Your task to perform on an android device: Add razer blade to the cart on walmart.com Image 0: 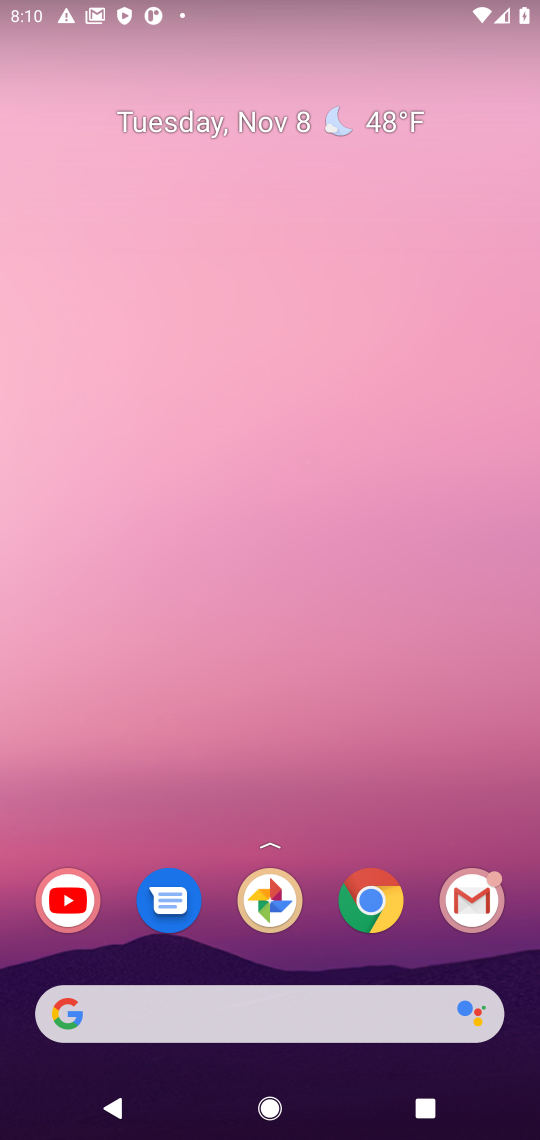
Step 0: click (378, 909)
Your task to perform on an android device: Add razer blade to the cart on walmart.com Image 1: 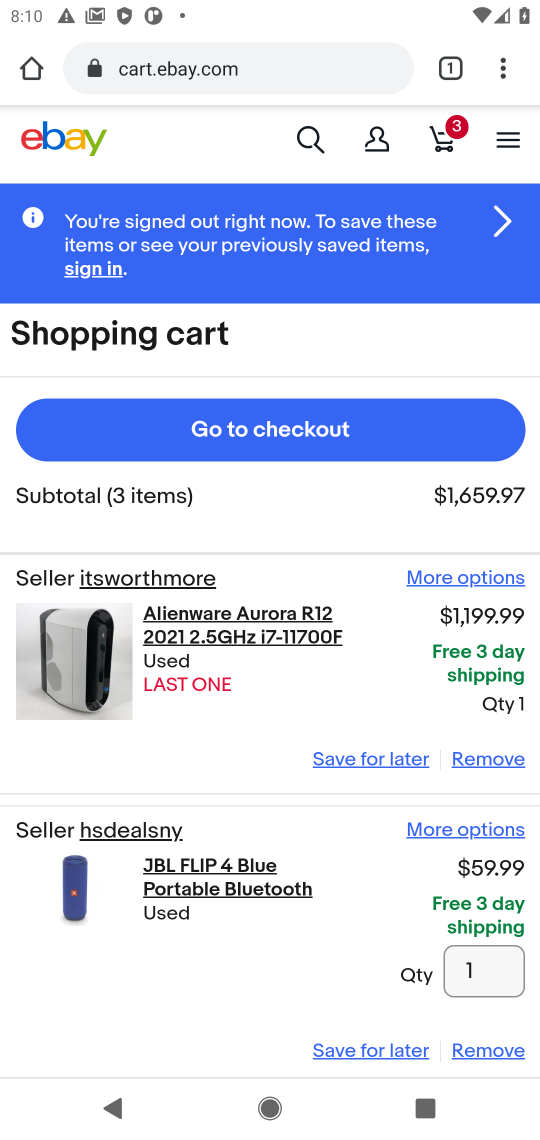
Step 1: click (160, 71)
Your task to perform on an android device: Add razer blade to the cart on walmart.com Image 2: 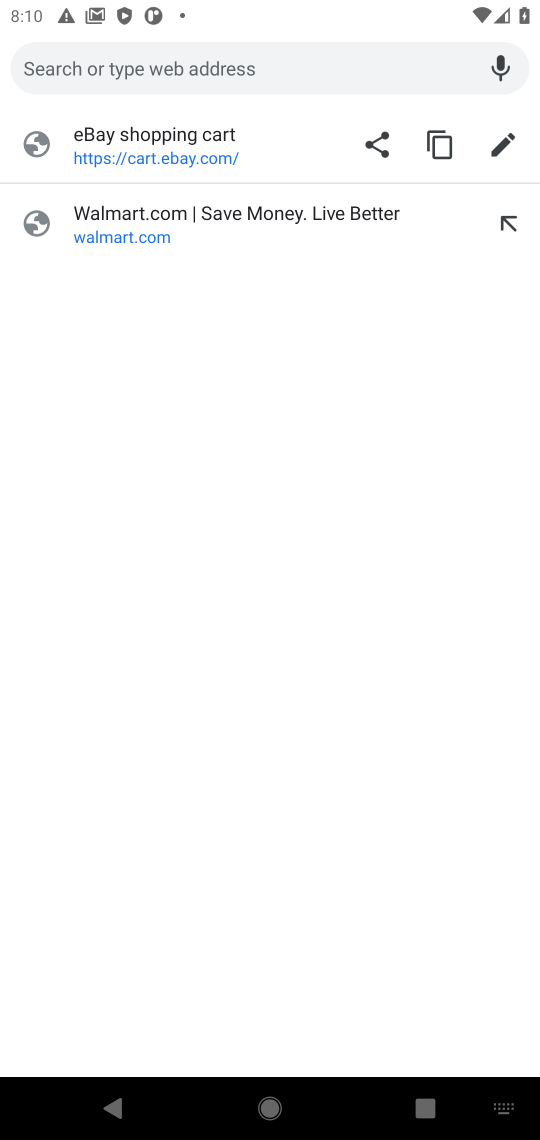
Step 2: type "walmart"
Your task to perform on an android device: Add razer blade to the cart on walmart.com Image 3: 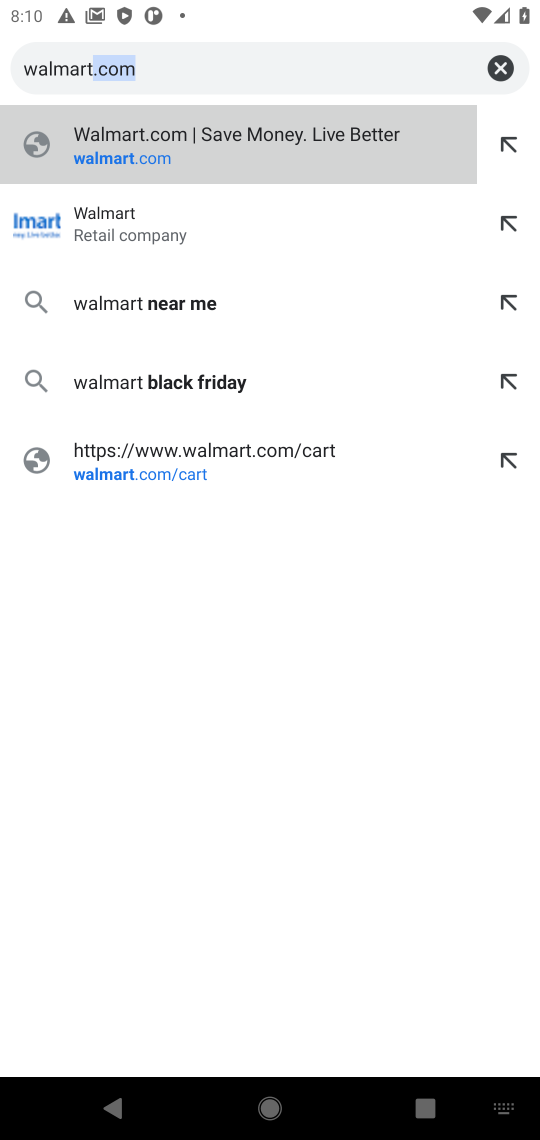
Step 3: type ""
Your task to perform on an android device: Add razer blade to the cart on walmart.com Image 4: 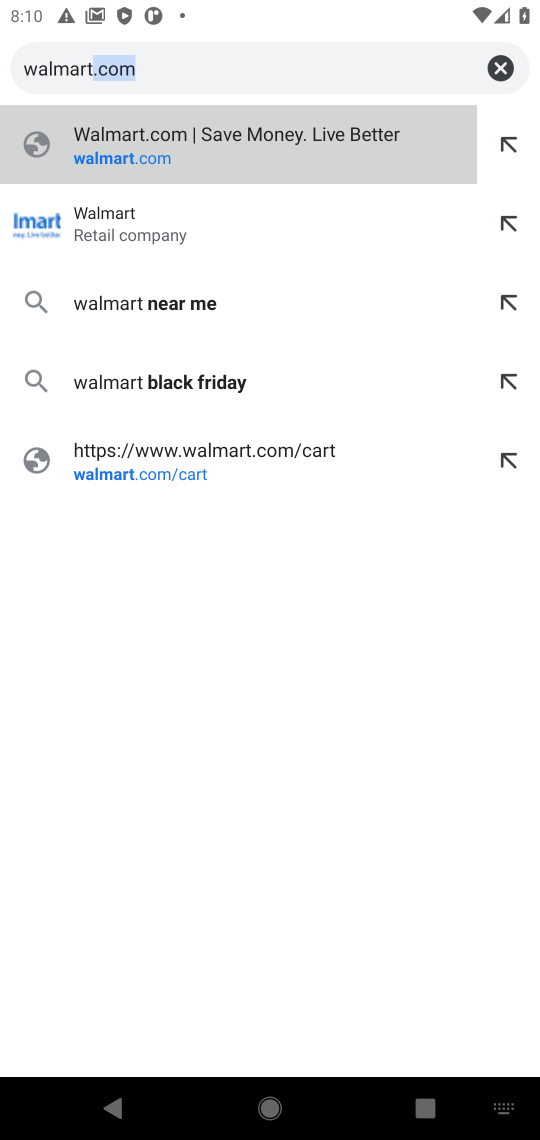
Step 4: click (68, 215)
Your task to perform on an android device: Add razer blade to the cart on walmart.com Image 5: 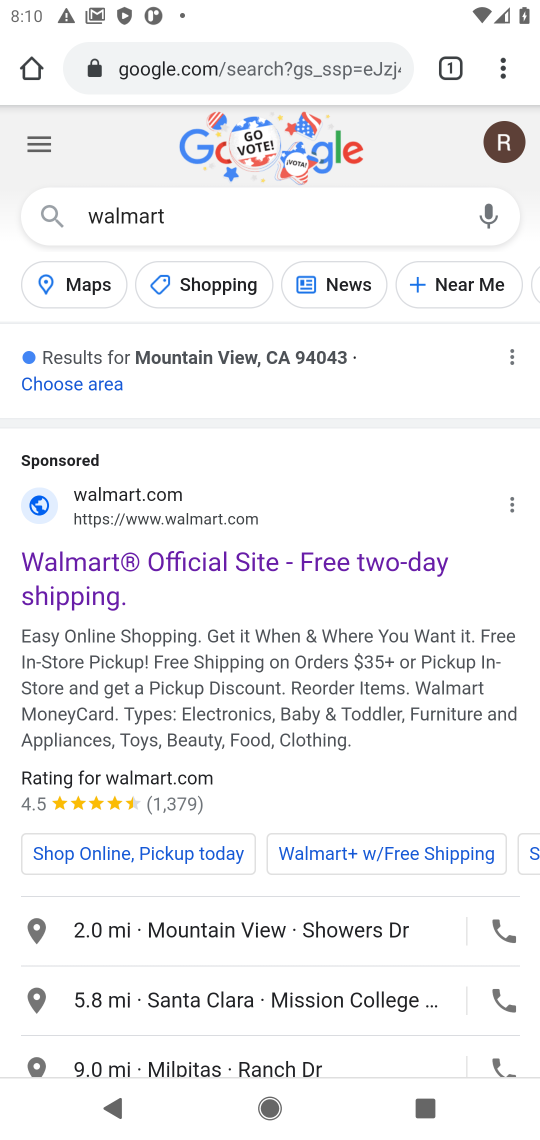
Step 5: drag from (247, 787) to (344, 87)
Your task to perform on an android device: Add razer blade to the cart on walmart.com Image 6: 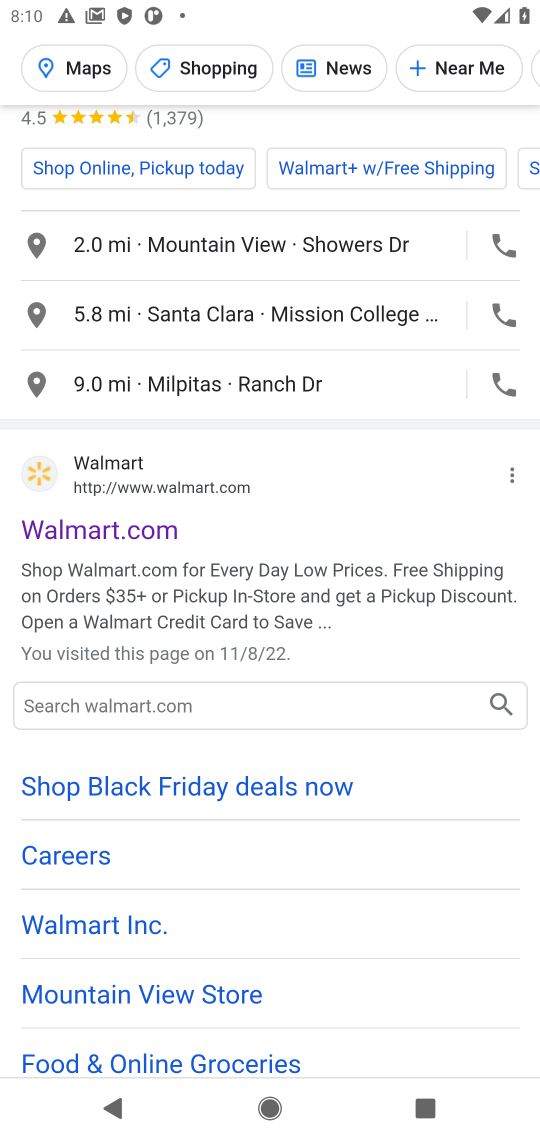
Step 6: click (68, 524)
Your task to perform on an android device: Add razer blade to the cart on walmart.com Image 7: 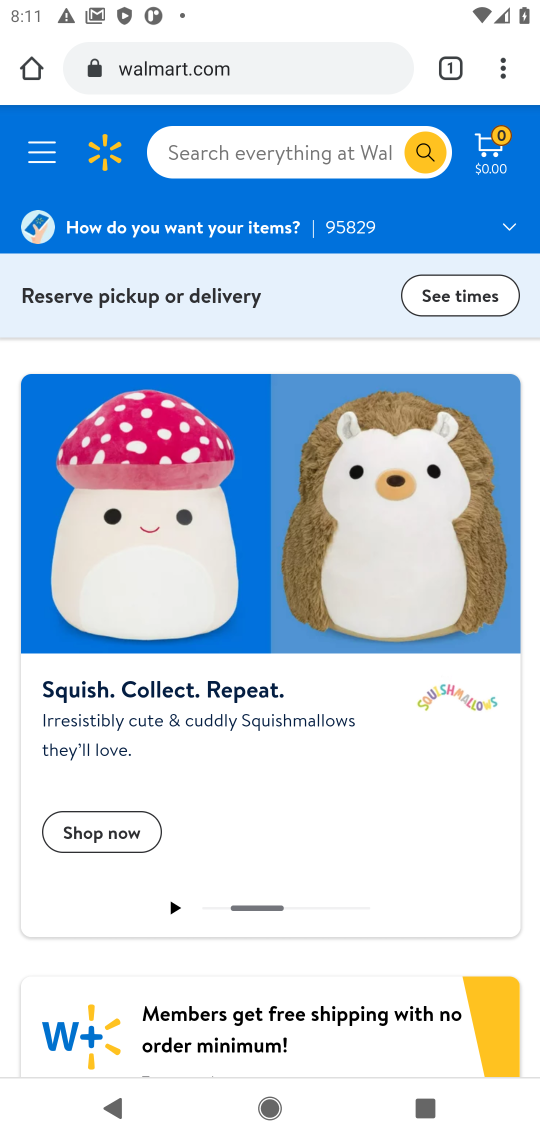
Step 7: click (463, 149)
Your task to perform on an android device: Add razer blade to the cart on walmart.com Image 8: 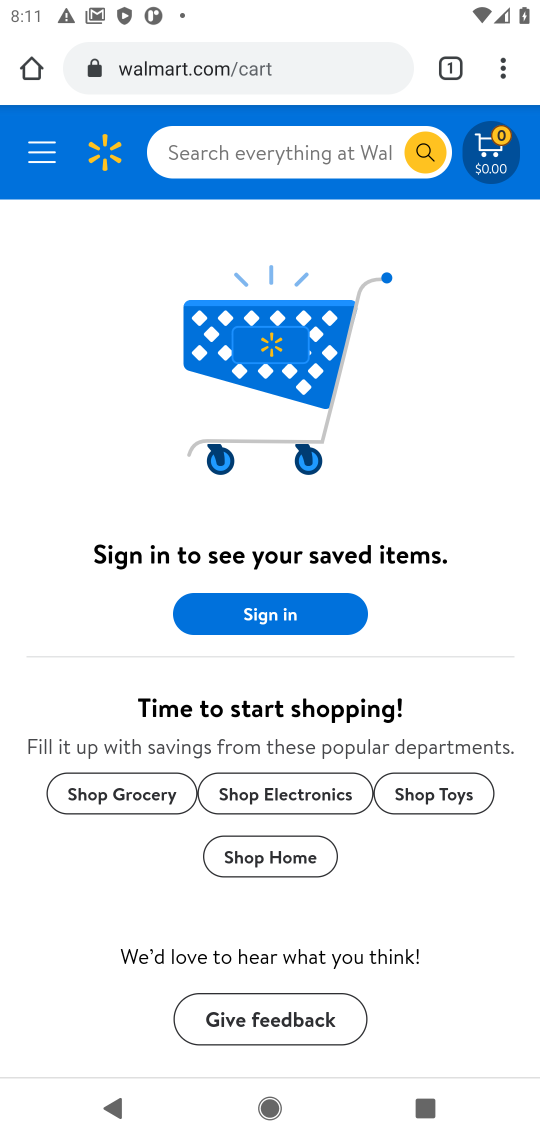
Step 8: click (263, 144)
Your task to perform on an android device: Add razer blade to the cart on walmart.com Image 9: 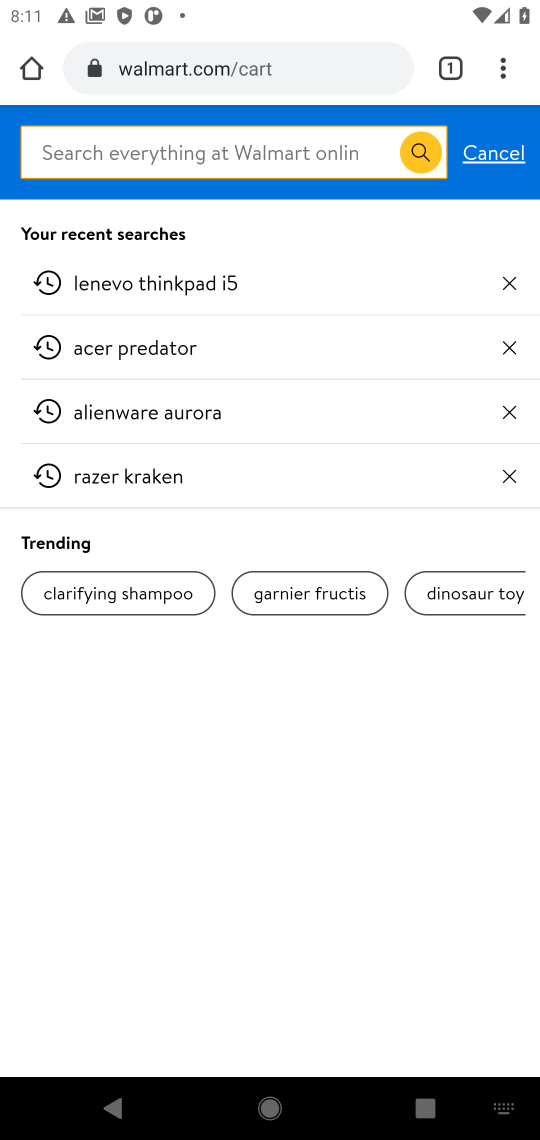
Step 9: type "razer blade"
Your task to perform on an android device: Add razer blade to the cart on walmart.com Image 10: 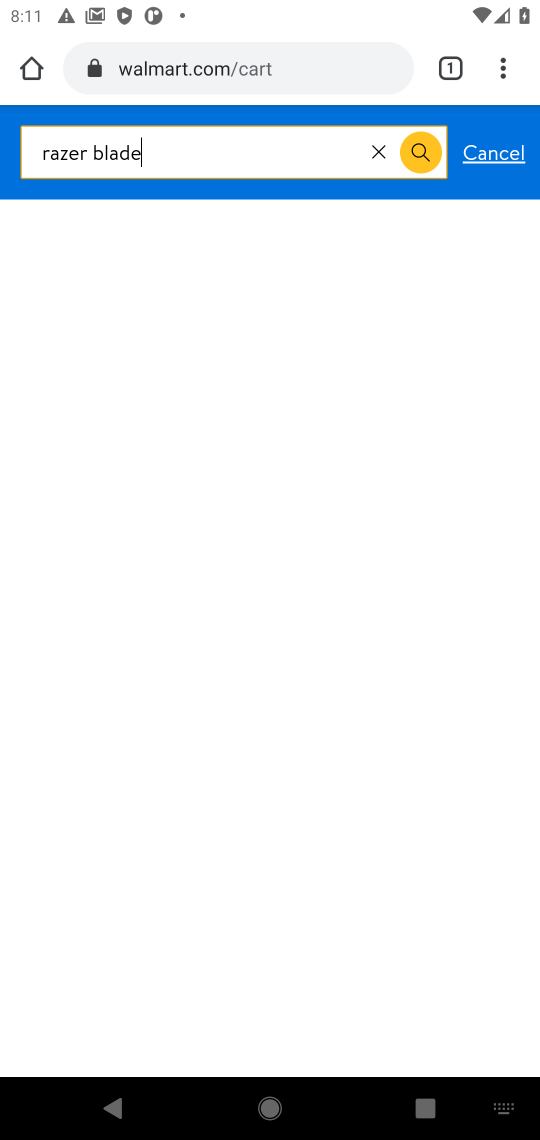
Step 10: type ""
Your task to perform on an android device: Add razer blade to the cart on walmart.com Image 11: 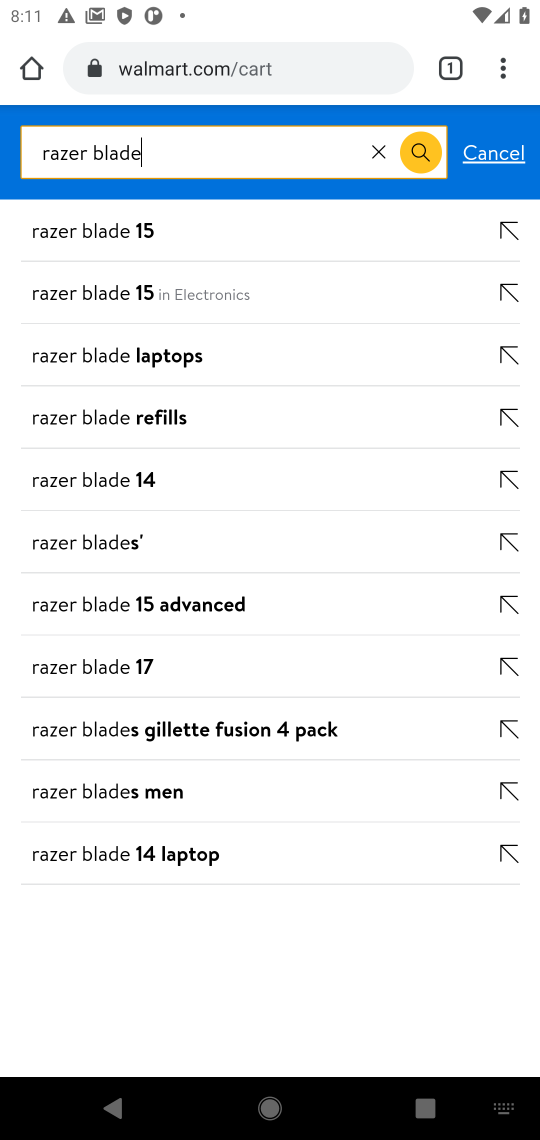
Step 11: click (94, 222)
Your task to perform on an android device: Add razer blade to the cart on walmart.com Image 12: 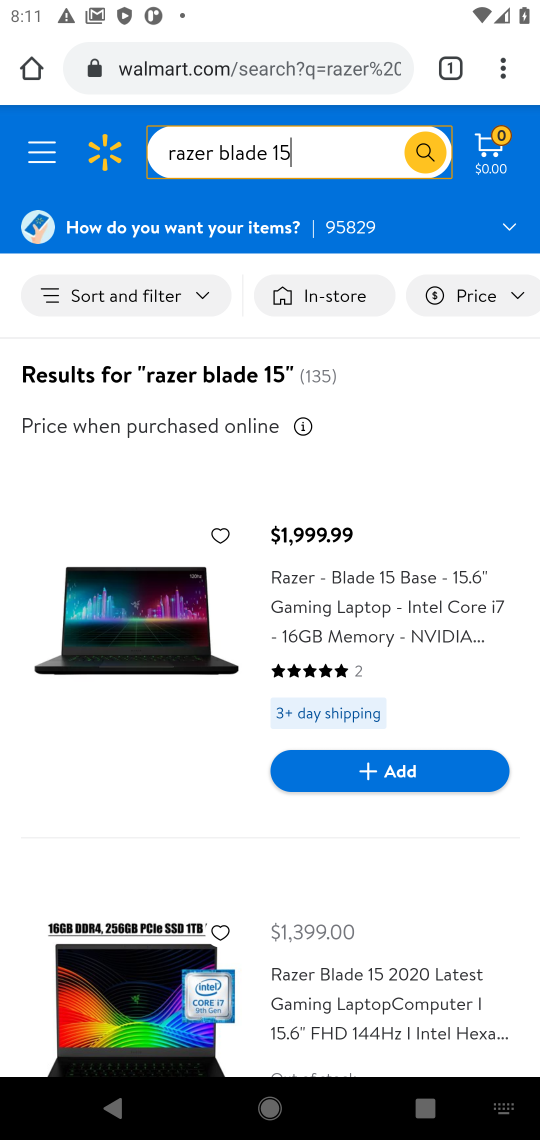
Step 12: click (357, 590)
Your task to perform on an android device: Add razer blade to the cart on walmart.com Image 13: 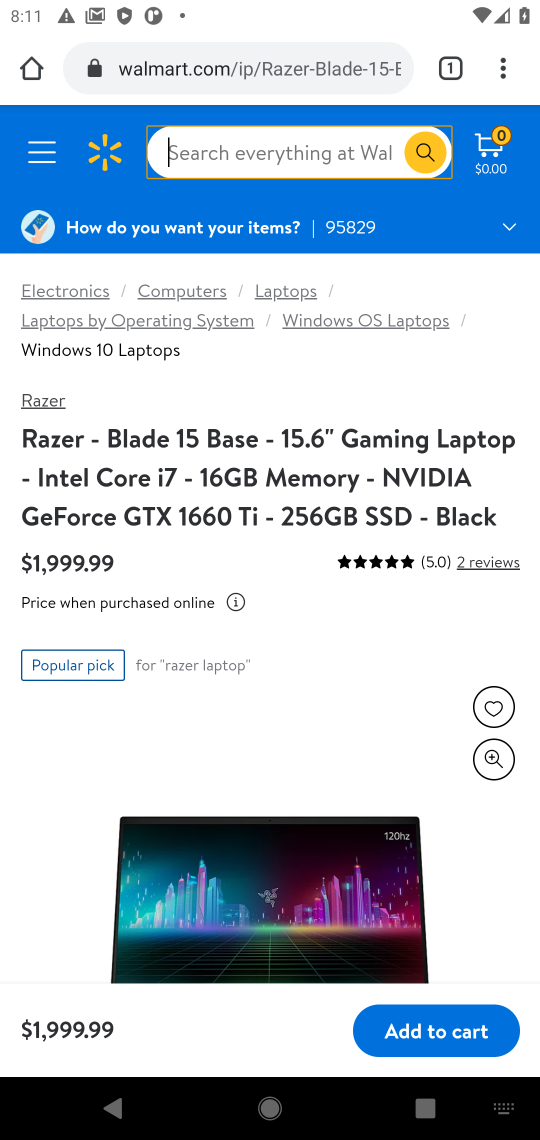
Step 13: click (433, 1042)
Your task to perform on an android device: Add razer blade to the cart on walmart.com Image 14: 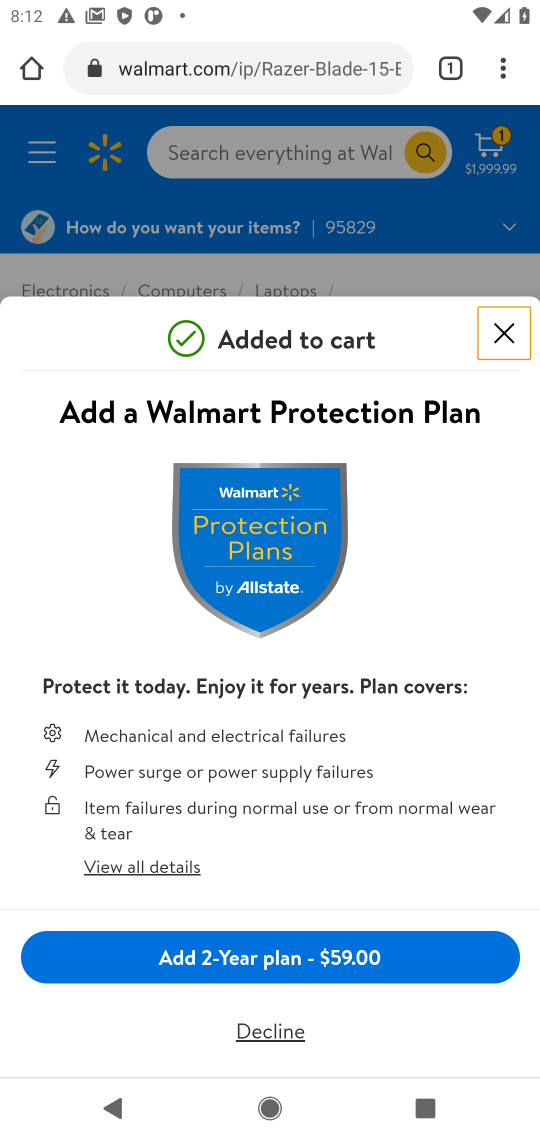
Step 14: click (499, 330)
Your task to perform on an android device: Add razer blade to the cart on walmart.com Image 15: 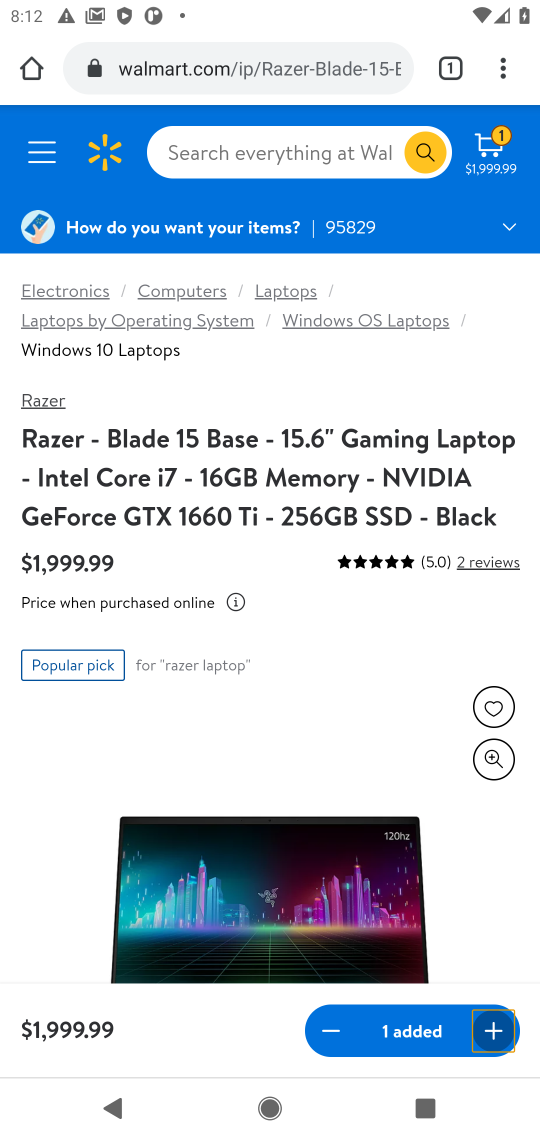
Step 15: task complete